Your task to perform on an android device: change the clock display to digital Image 0: 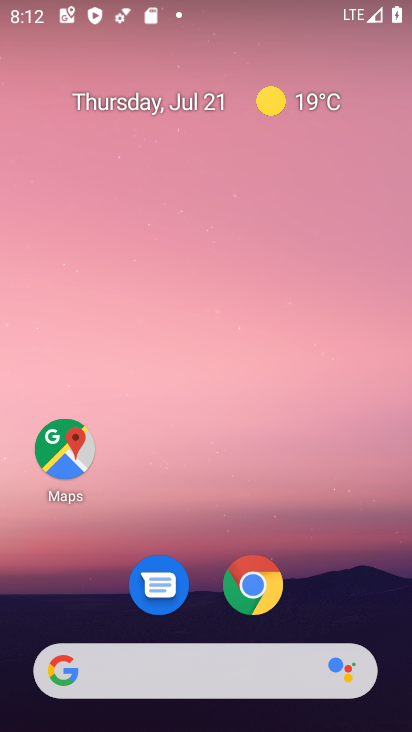
Step 0: drag from (298, 524) to (298, 3)
Your task to perform on an android device: change the clock display to digital Image 1: 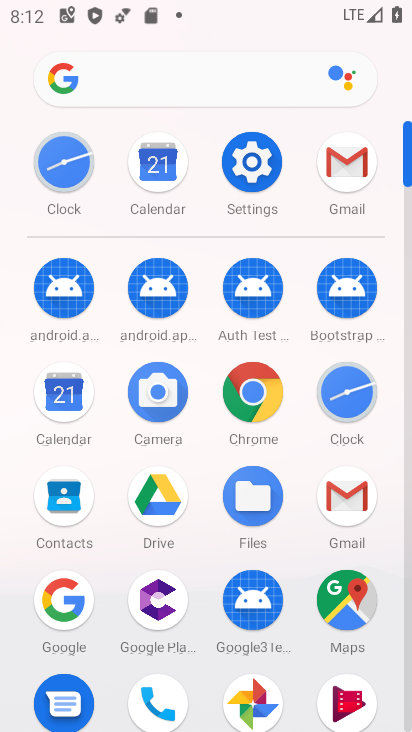
Step 1: click (345, 399)
Your task to perform on an android device: change the clock display to digital Image 2: 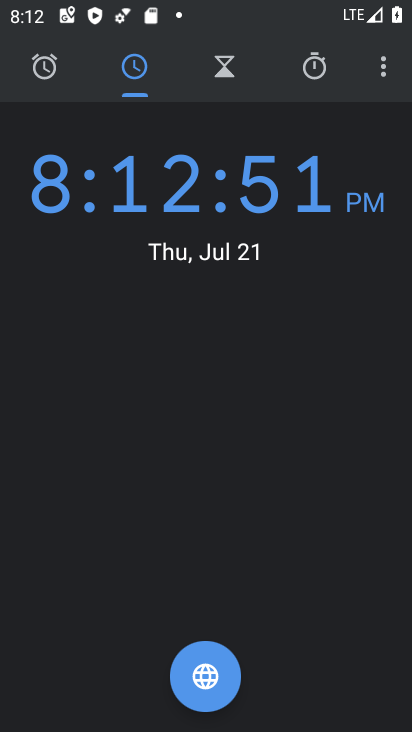
Step 2: task complete